Your task to perform on an android device: Show the shopping cart on newegg. Image 0: 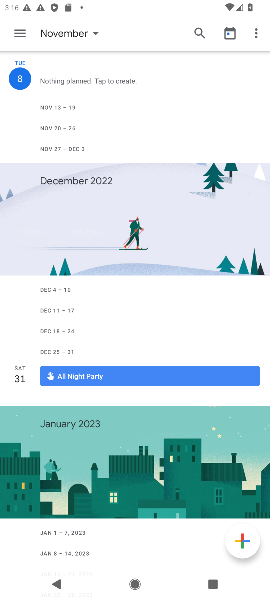
Step 0: press home button
Your task to perform on an android device: Show the shopping cart on newegg. Image 1: 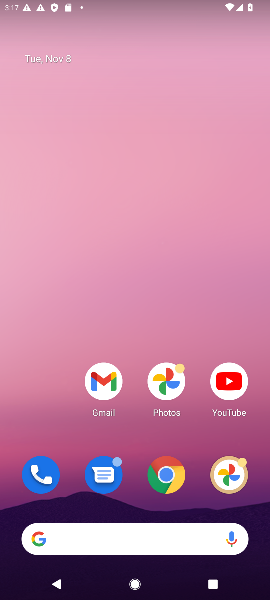
Step 1: drag from (97, 513) to (85, 204)
Your task to perform on an android device: Show the shopping cart on newegg. Image 2: 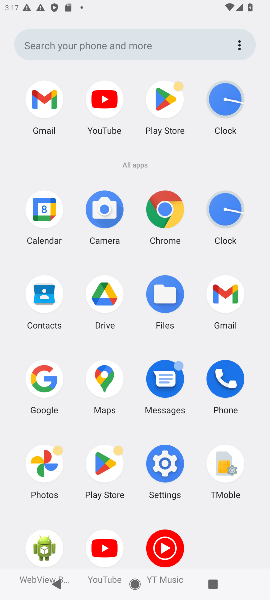
Step 2: click (34, 374)
Your task to perform on an android device: Show the shopping cart on newegg. Image 3: 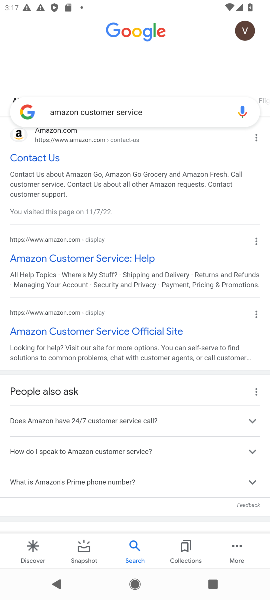
Step 3: click (109, 113)
Your task to perform on an android device: Show the shopping cart on newegg. Image 4: 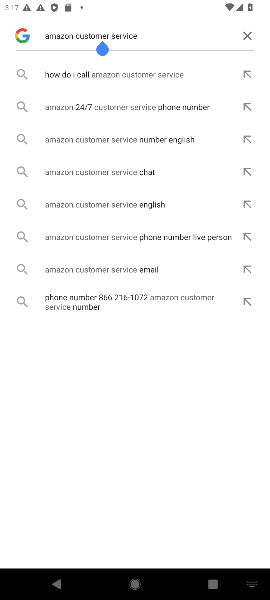
Step 4: click (248, 36)
Your task to perform on an android device: Show the shopping cart on newegg. Image 5: 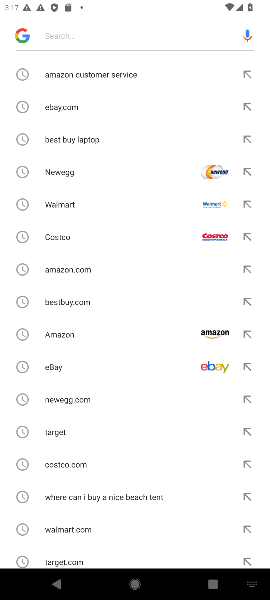
Step 5: click (70, 401)
Your task to perform on an android device: Show the shopping cart on newegg. Image 6: 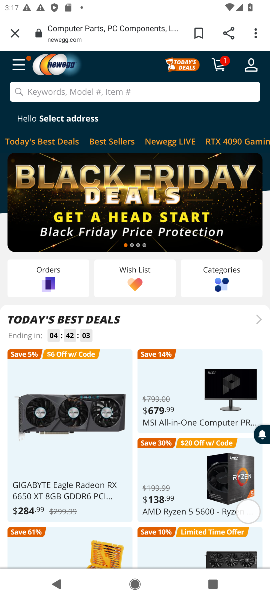
Step 6: click (219, 53)
Your task to perform on an android device: Show the shopping cart on newegg. Image 7: 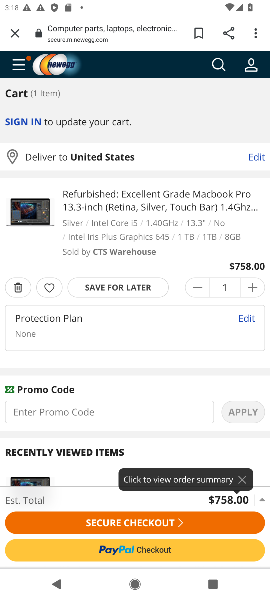
Step 7: task complete